Your task to perform on an android device: Check the weather Image 0: 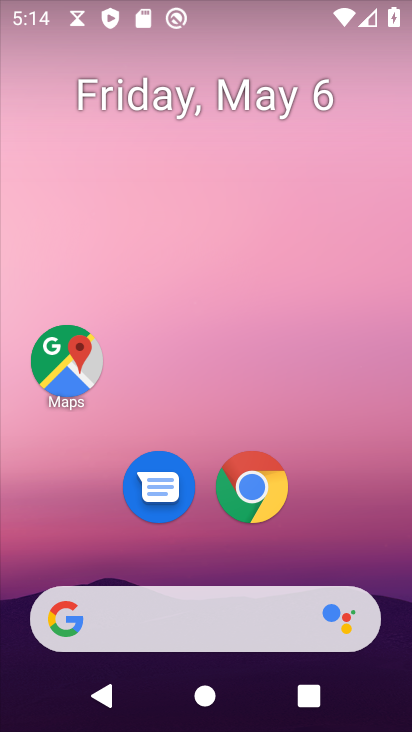
Step 0: drag from (327, 528) to (244, 9)
Your task to perform on an android device: Check the weather Image 1: 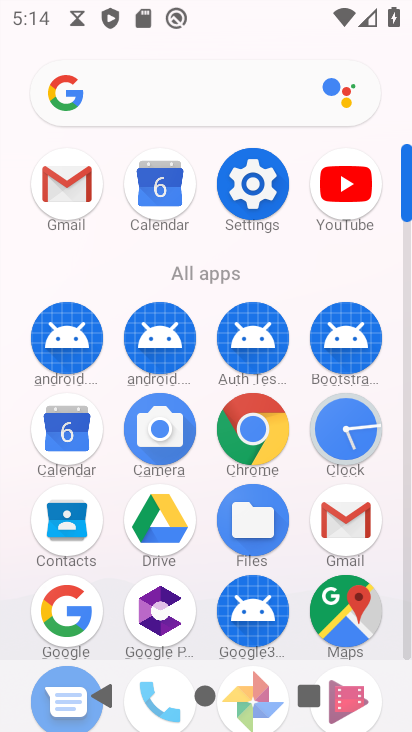
Step 1: drag from (207, 497) to (197, 299)
Your task to perform on an android device: Check the weather Image 2: 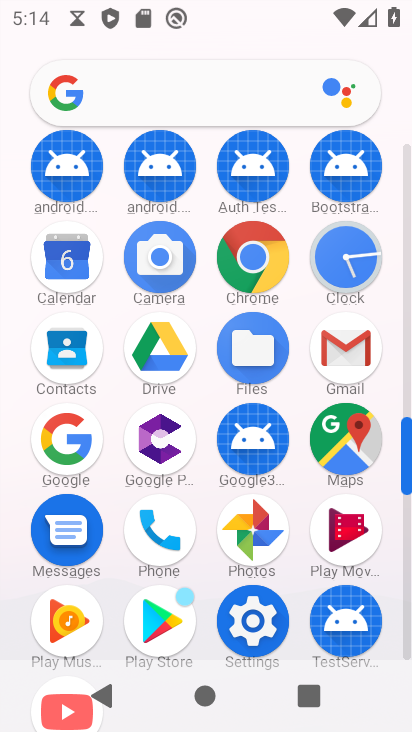
Step 2: click (60, 441)
Your task to perform on an android device: Check the weather Image 3: 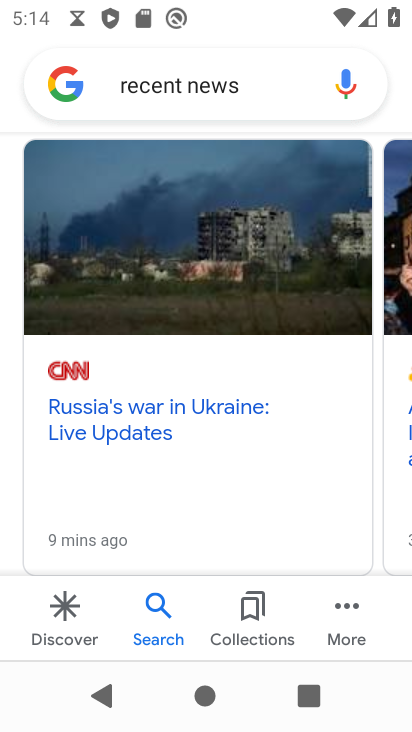
Step 3: click (272, 95)
Your task to perform on an android device: Check the weather Image 4: 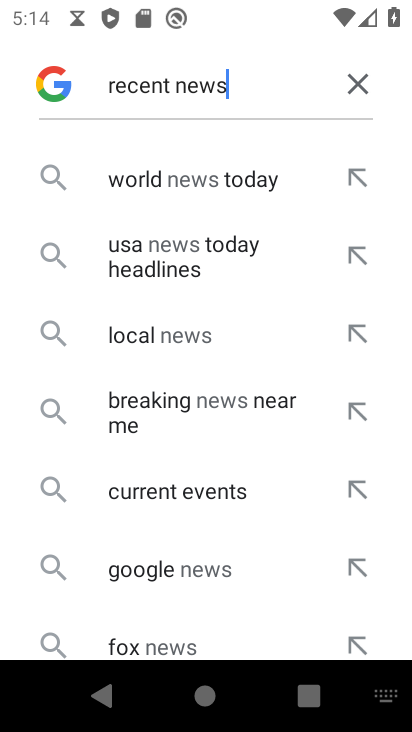
Step 4: click (361, 84)
Your task to perform on an android device: Check the weather Image 5: 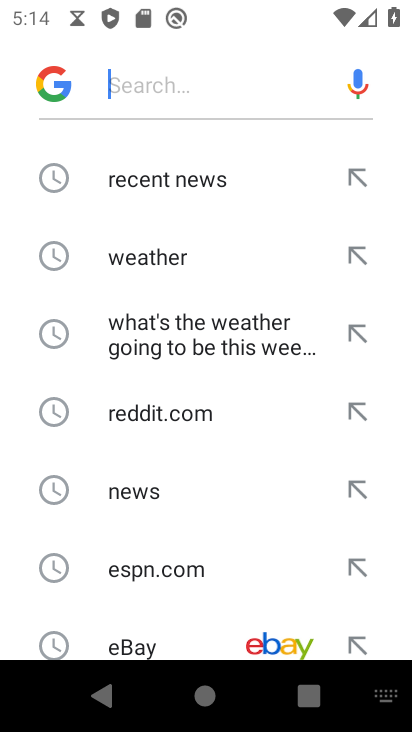
Step 5: click (158, 251)
Your task to perform on an android device: Check the weather Image 6: 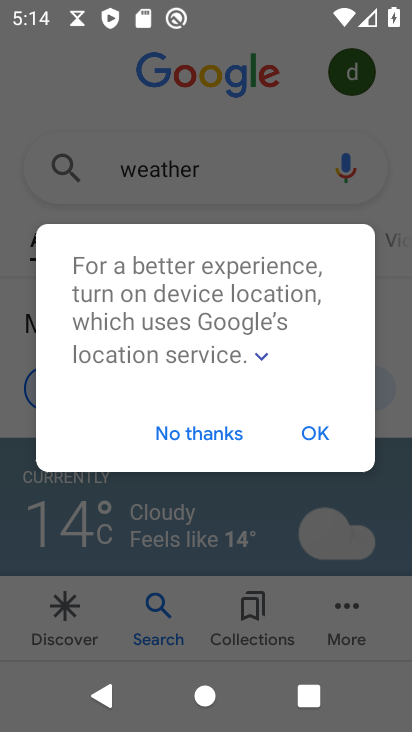
Step 6: click (193, 438)
Your task to perform on an android device: Check the weather Image 7: 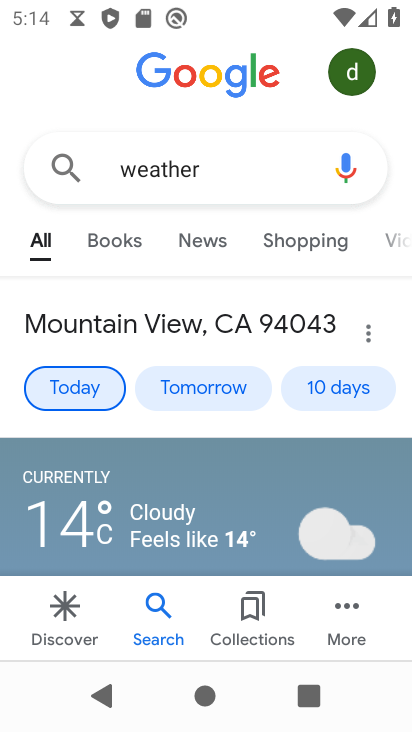
Step 7: task complete